Your task to perform on an android device: snooze an email in the gmail app Image 0: 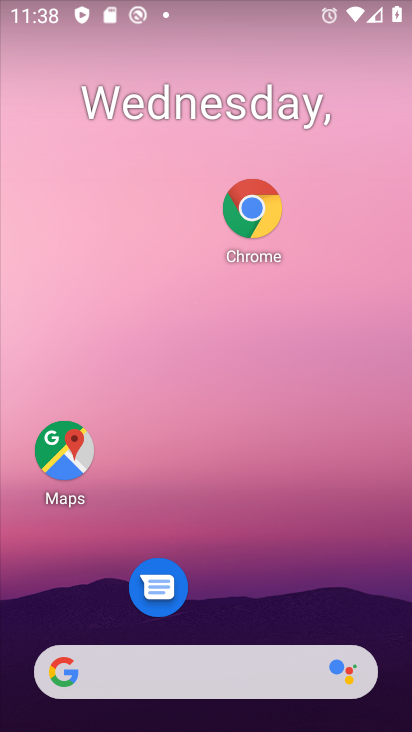
Step 0: drag from (209, 528) to (141, 9)
Your task to perform on an android device: snooze an email in the gmail app Image 1: 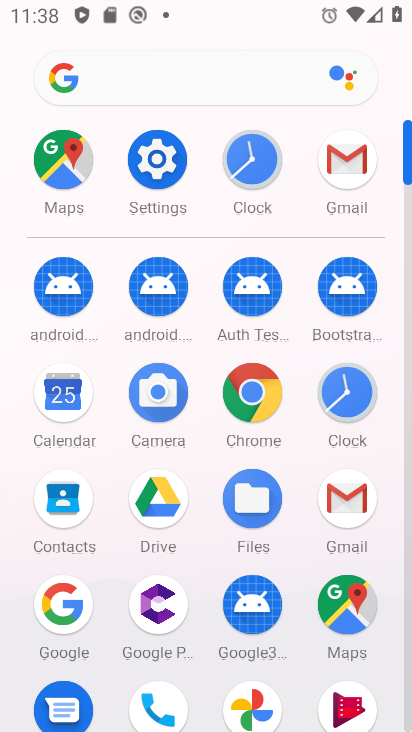
Step 1: click (348, 181)
Your task to perform on an android device: snooze an email in the gmail app Image 2: 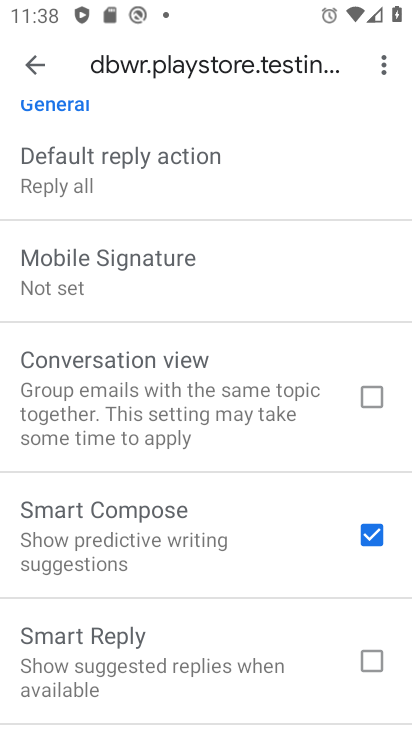
Step 2: click (30, 62)
Your task to perform on an android device: snooze an email in the gmail app Image 3: 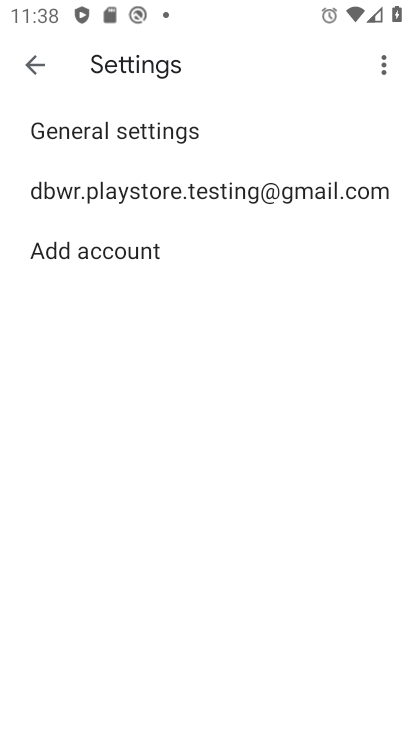
Step 3: click (31, 64)
Your task to perform on an android device: snooze an email in the gmail app Image 4: 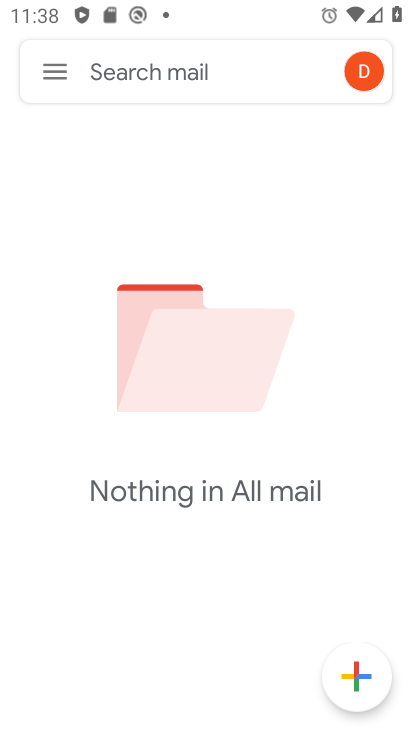
Step 4: click (54, 71)
Your task to perform on an android device: snooze an email in the gmail app Image 5: 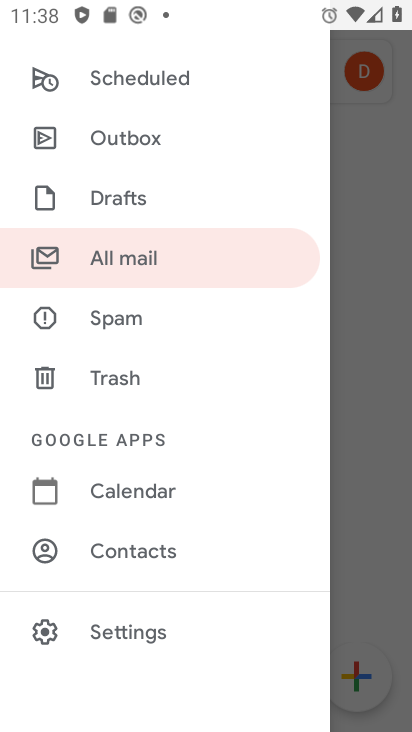
Step 5: click (115, 274)
Your task to perform on an android device: snooze an email in the gmail app Image 6: 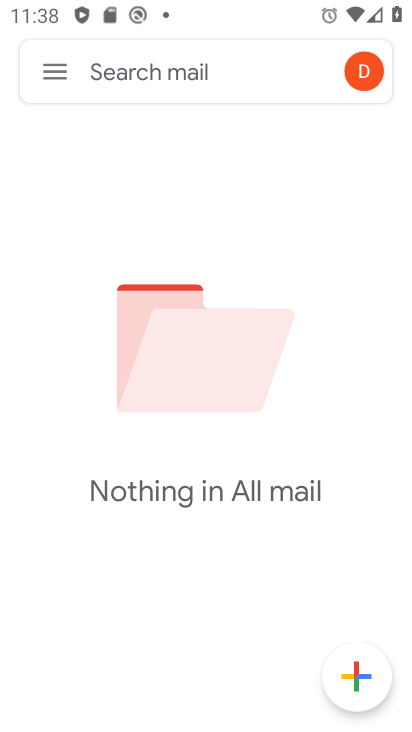
Step 6: task complete